Your task to perform on an android device: Open wifi settings Image 0: 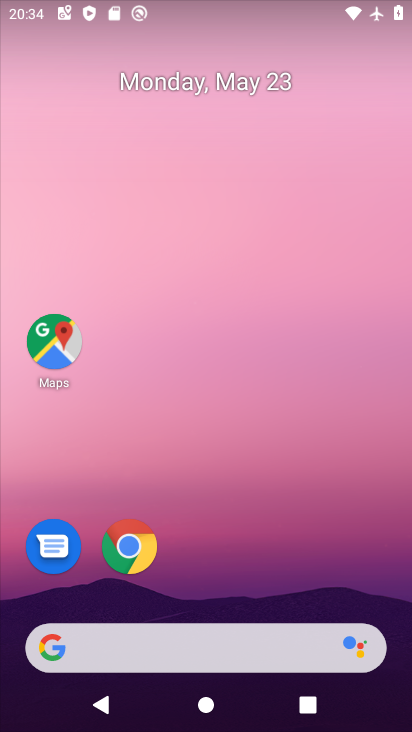
Step 0: drag from (384, 592) to (379, 169)
Your task to perform on an android device: Open wifi settings Image 1: 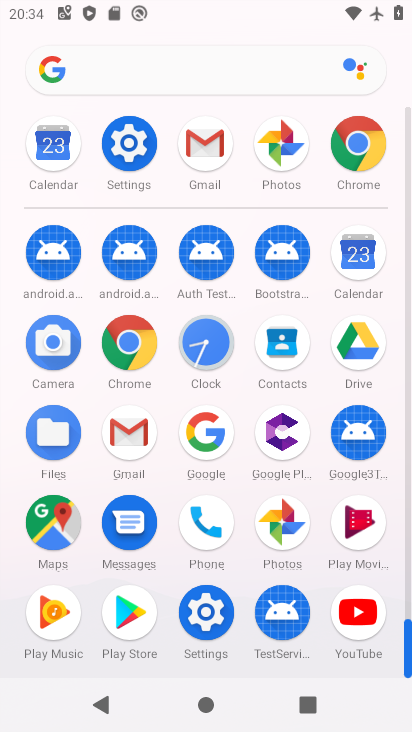
Step 1: click (195, 631)
Your task to perform on an android device: Open wifi settings Image 2: 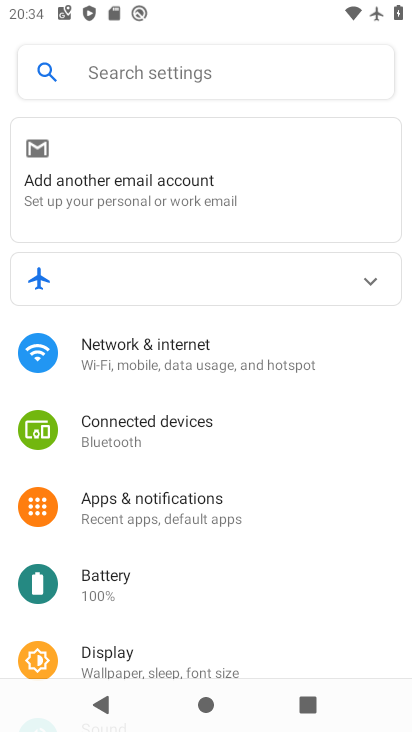
Step 2: drag from (336, 628) to (339, 519)
Your task to perform on an android device: Open wifi settings Image 3: 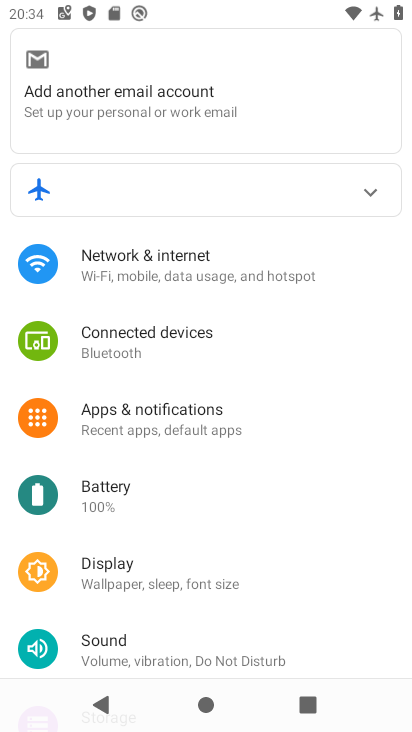
Step 3: drag from (346, 662) to (350, 545)
Your task to perform on an android device: Open wifi settings Image 4: 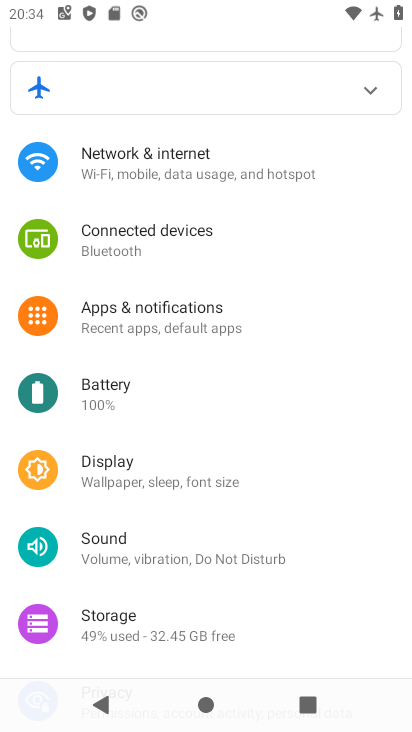
Step 4: drag from (343, 632) to (341, 543)
Your task to perform on an android device: Open wifi settings Image 5: 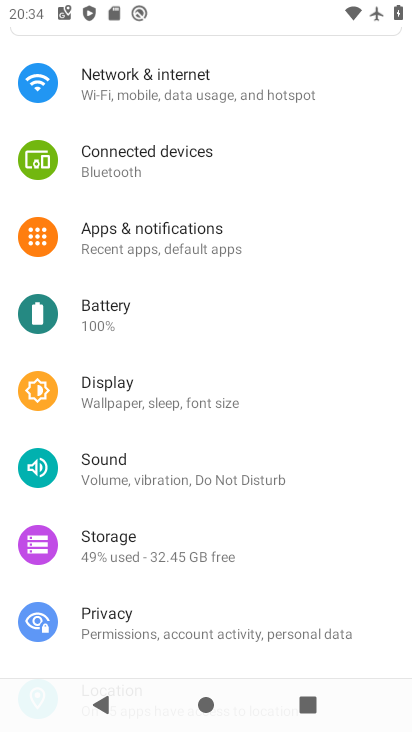
Step 5: drag from (363, 640) to (360, 536)
Your task to perform on an android device: Open wifi settings Image 6: 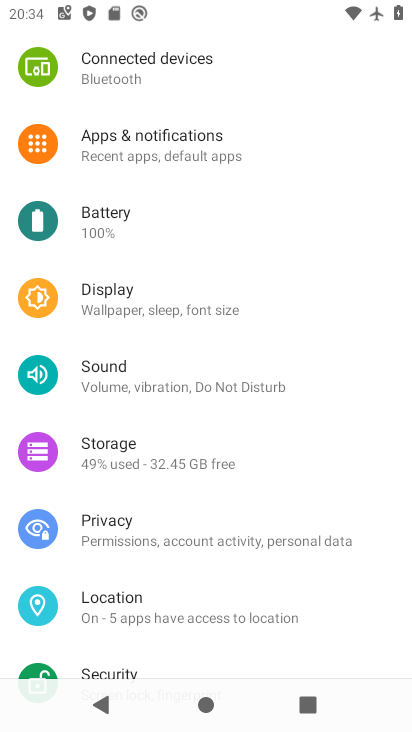
Step 6: drag from (363, 626) to (351, 531)
Your task to perform on an android device: Open wifi settings Image 7: 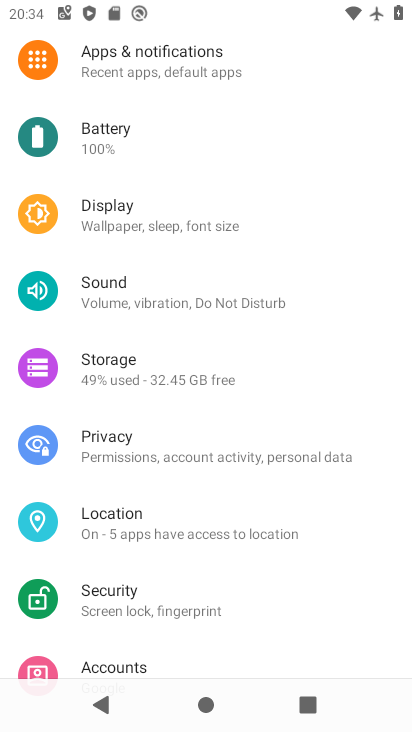
Step 7: drag from (350, 614) to (350, 518)
Your task to perform on an android device: Open wifi settings Image 8: 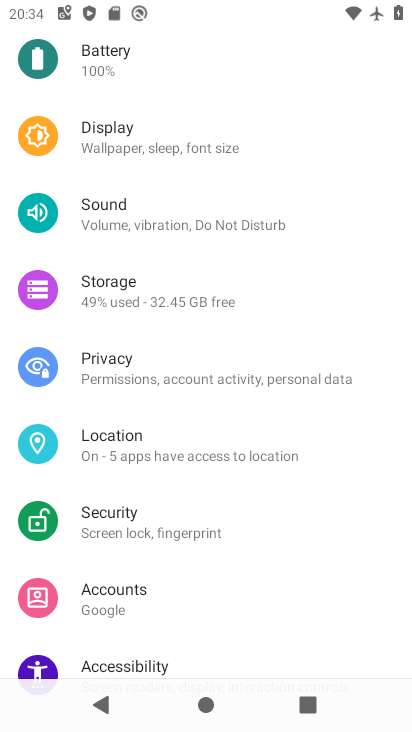
Step 8: drag from (368, 615) to (358, 508)
Your task to perform on an android device: Open wifi settings Image 9: 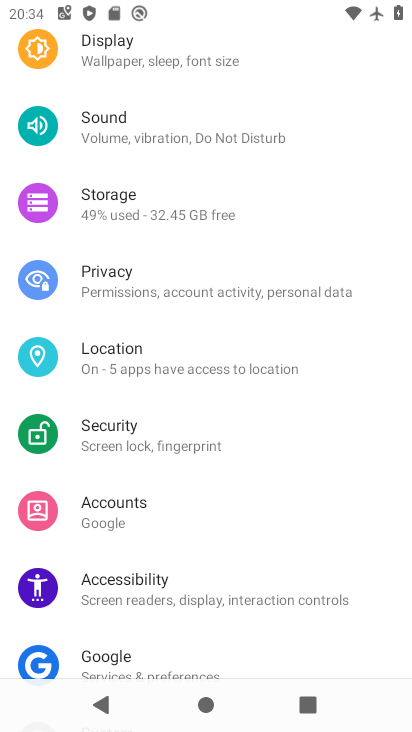
Step 9: drag from (374, 602) to (374, 523)
Your task to perform on an android device: Open wifi settings Image 10: 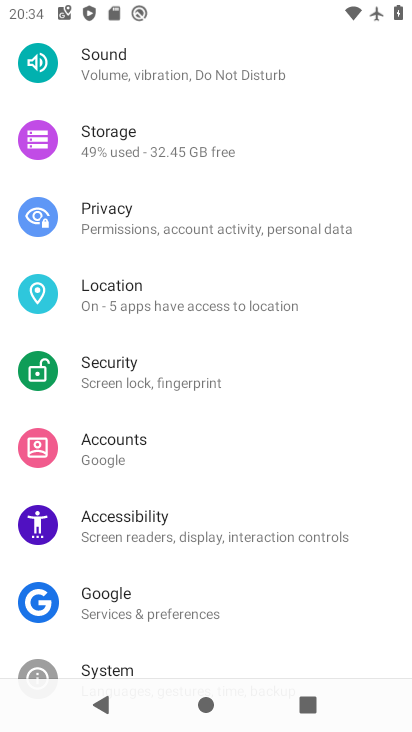
Step 10: drag from (357, 625) to (358, 548)
Your task to perform on an android device: Open wifi settings Image 11: 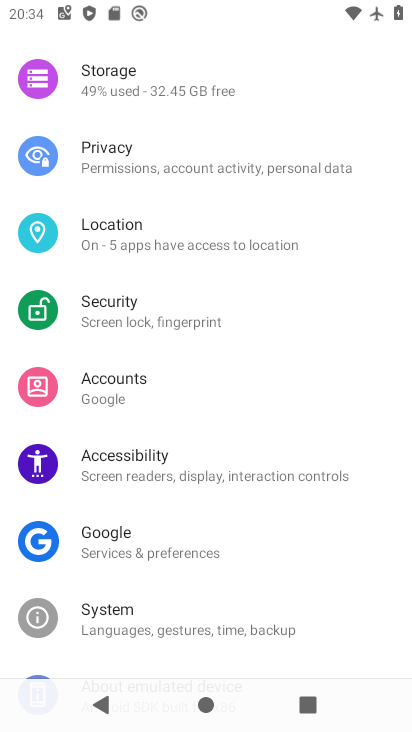
Step 11: drag from (367, 641) to (364, 547)
Your task to perform on an android device: Open wifi settings Image 12: 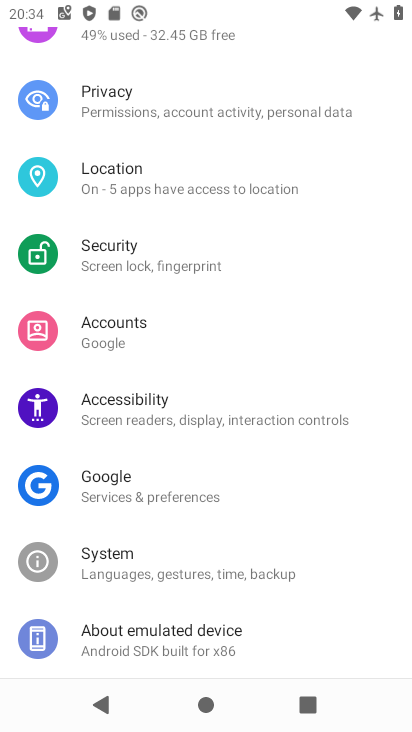
Step 12: drag from (357, 629) to (363, 529)
Your task to perform on an android device: Open wifi settings Image 13: 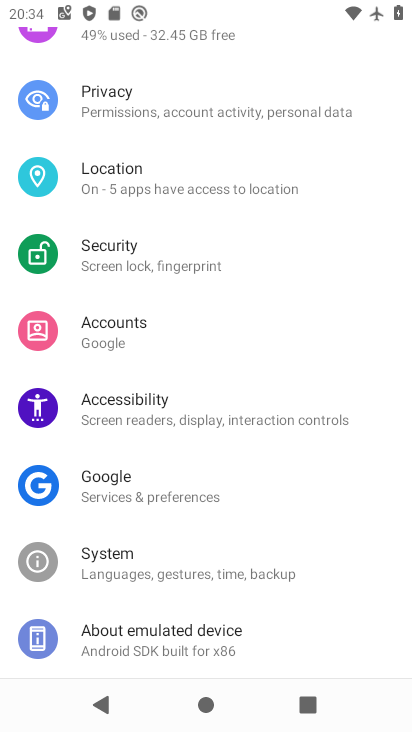
Step 13: drag from (376, 353) to (370, 438)
Your task to perform on an android device: Open wifi settings Image 14: 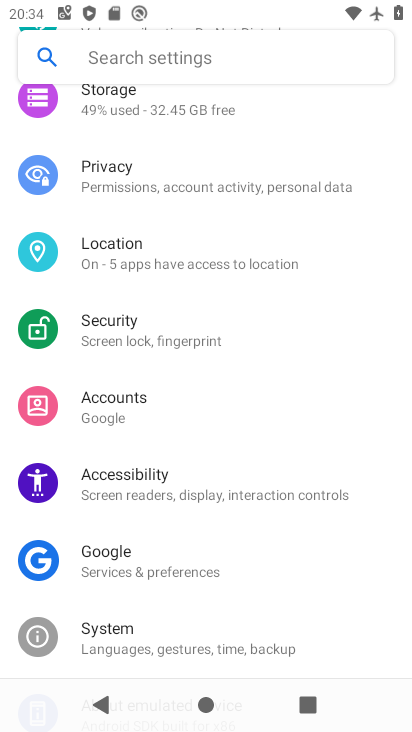
Step 14: drag from (374, 324) to (364, 423)
Your task to perform on an android device: Open wifi settings Image 15: 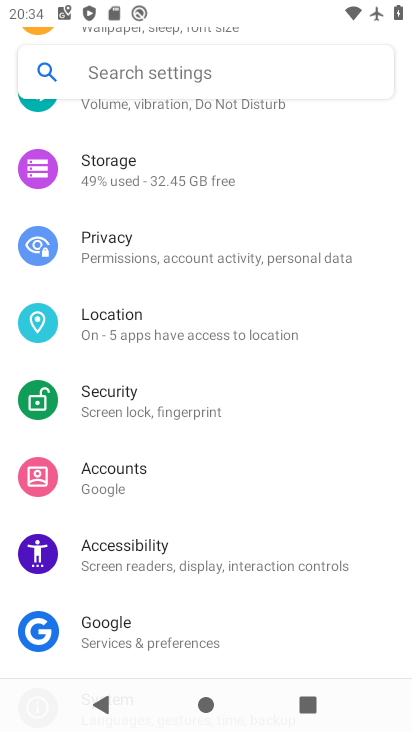
Step 15: drag from (364, 334) to (355, 430)
Your task to perform on an android device: Open wifi settings Image 16: 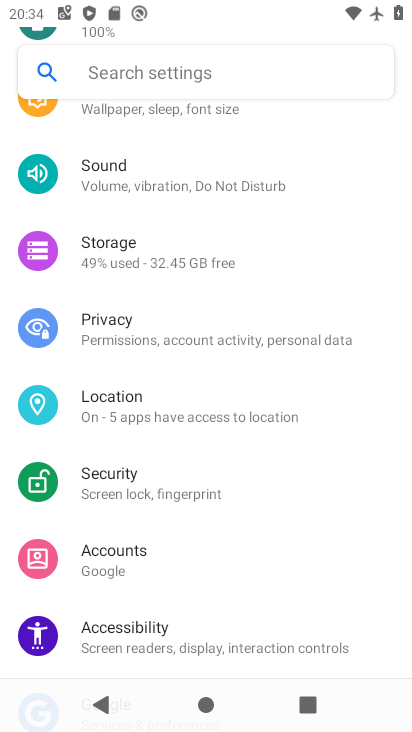
Step 16: drag from (364, 310) to (365, 398)
Your task to perform on an android device: Open wifi settings Image 17: 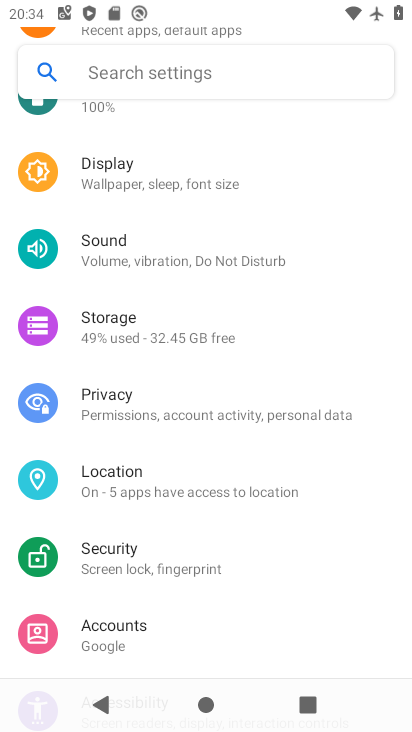
Step 17: drag from (378, 294) to (385, 397)
Your task to perform on an android device: Open wifi settings Image 18: 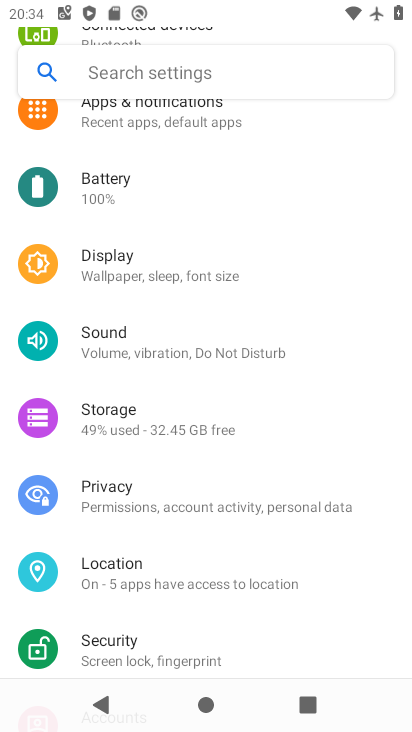
Step 18: drag from (379, 283) to (358, 415)
Your task to perform on an android device: Open wifi settings Image 19: 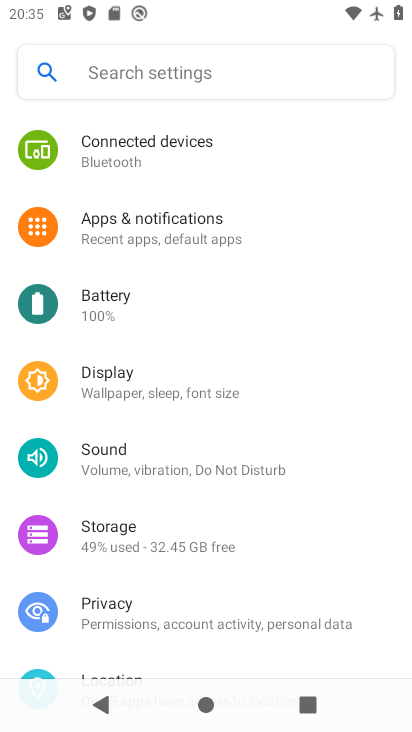
Step 19: drag from (356, 206) to (359, 318)
Your task to perform on an android device: Open wifi settings Image 20: 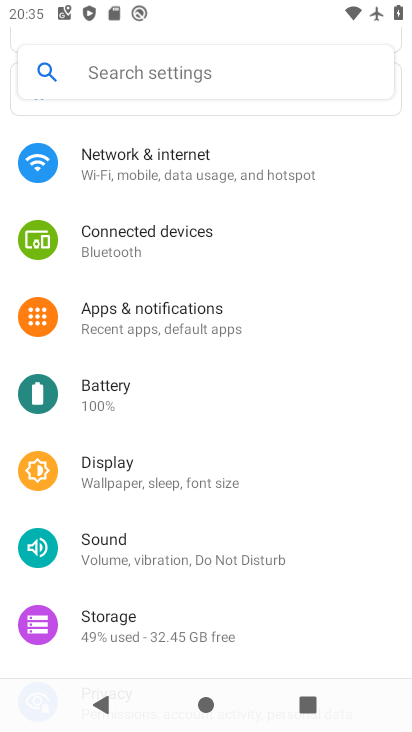
Step 20: drag from (353, 224) to (350, 376)
Your task to perform on an android device: Open wifi settings Image 21: 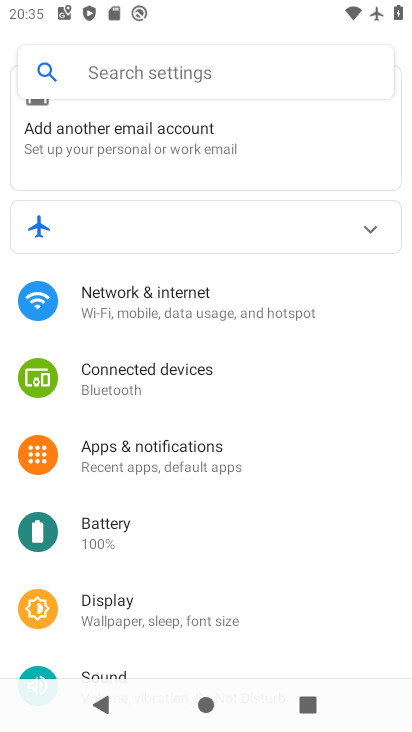
Step 21: drag from (314, 267) to (316, 409)
Your task to perform on an android device: Open wifi settings Image 22: 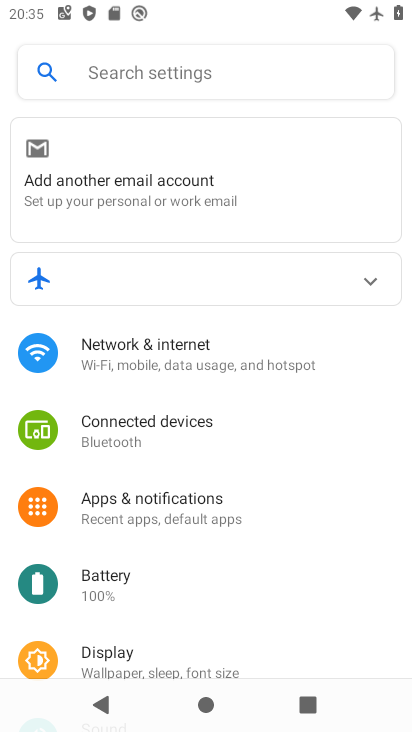
Step 22: click (153, 349)
Your task to perform on an android device: Open wifi settings Image 23: 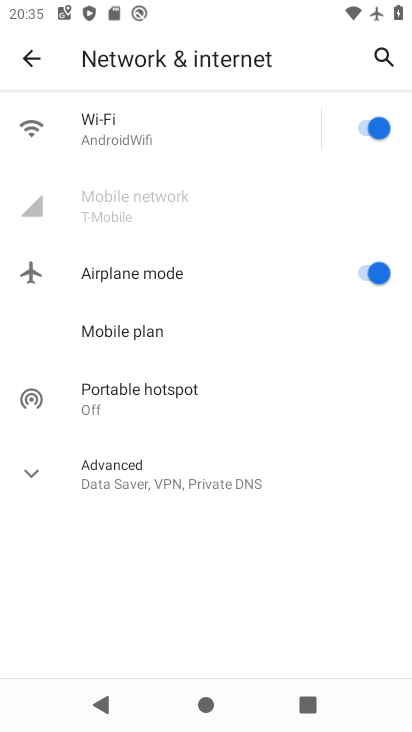
Step 23: click (163, 124)
Your task to perform on an android device: Open wifi settings Image 24: 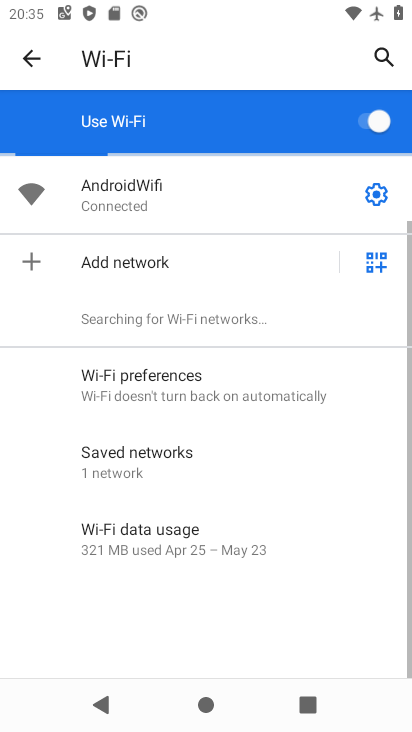
Step 24: task complete